Your task to perform on an android device: Go to settings Image 0: 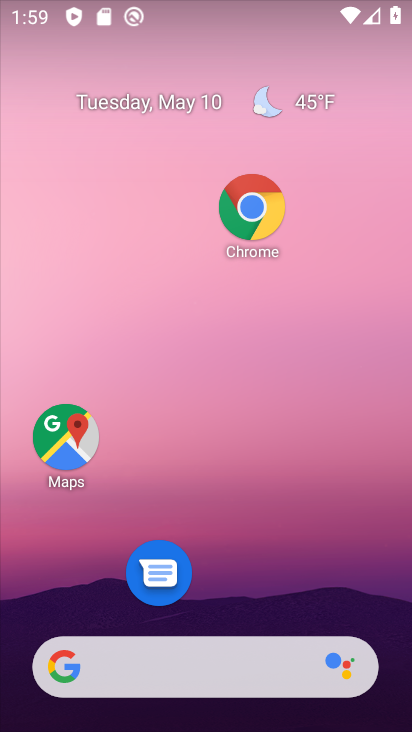
Step 0: drag from (242, 529) to (340, 4)
Your task to perform on an android device: Go to settings Image 1: 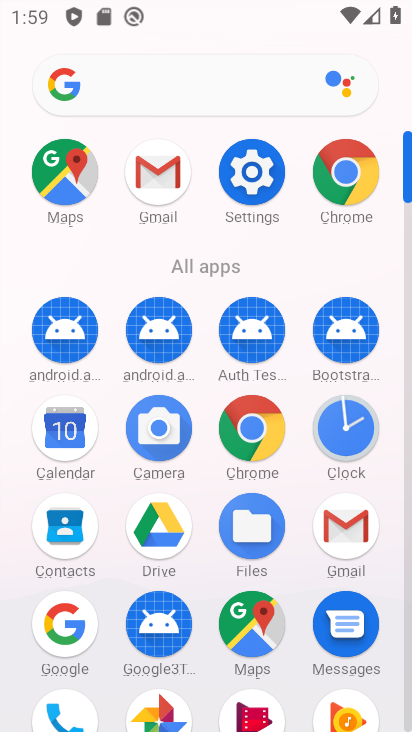
Step 1: click (254, 217)
Your task to perform on an android device: Go to settings Image 2: 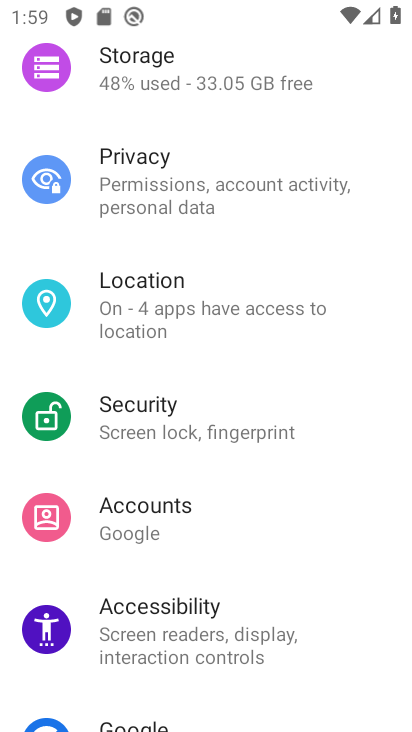
Step 2: task complete